Your task to perform on an android device: make emails show in primary in the gmail app Image 0: 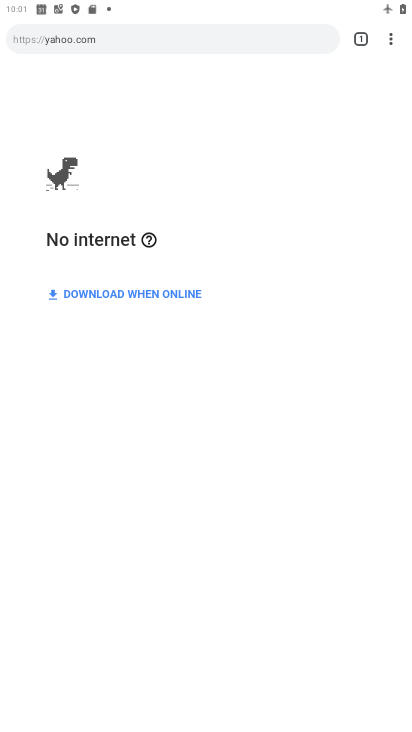
Step 0: press home button
Your task to perform on an android device: make emails show in primary in the gmail app Image 1: 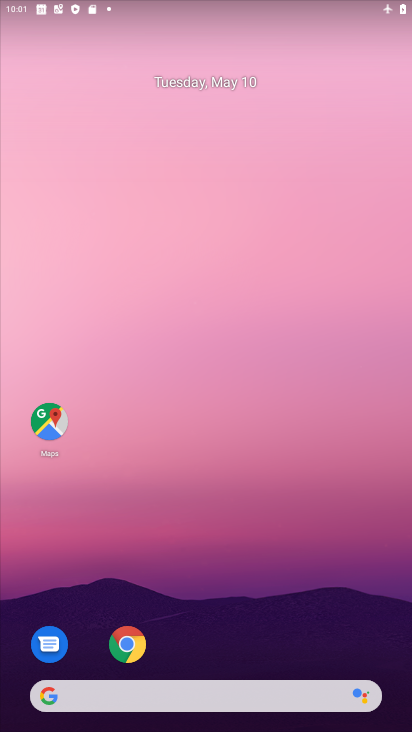
Step 1: drag from (327, 598) to (317, 198)
Your task to perform on an android device: make emails show in primary in the gmail app Image 2: 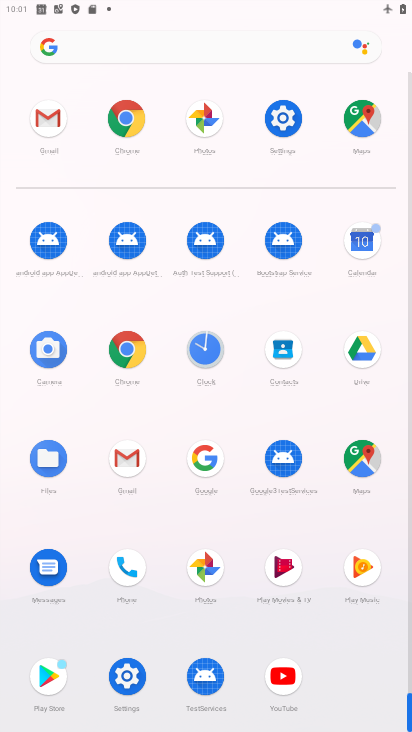
Step 2: click (120, 471)
Your task to perform on an android device: make emails show in primary in the gmail app Image 3: 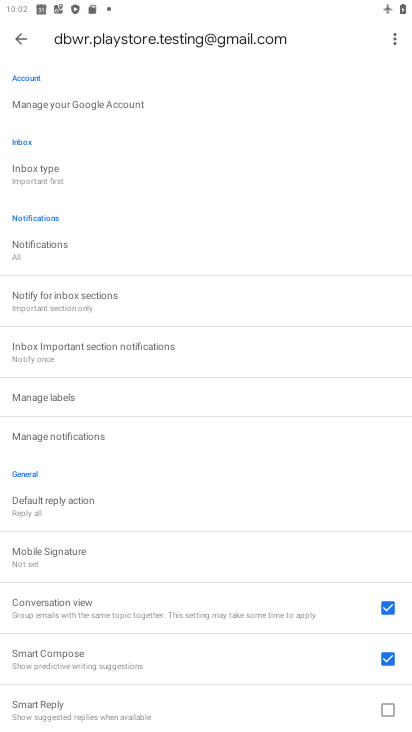
Step 3: click (21, 38)
Your task to perform on an android device: make emails show in primary in the gmail app Image 4: 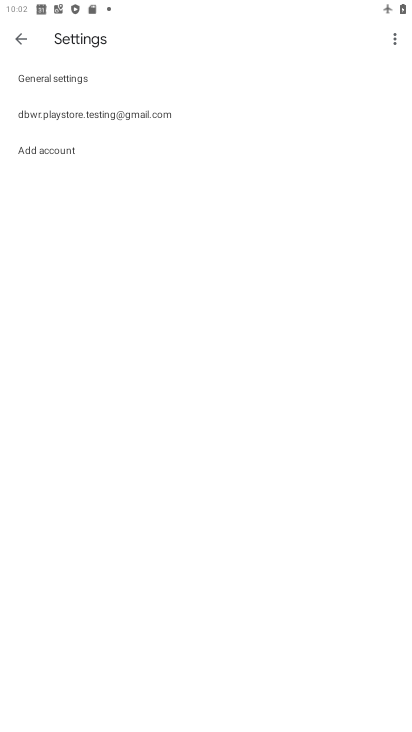
Step 4: task complete